Your task to perform on an android device: Clear all items from cart on amazon. Add "jbl flip 4" to the cart on amazon Image 0: 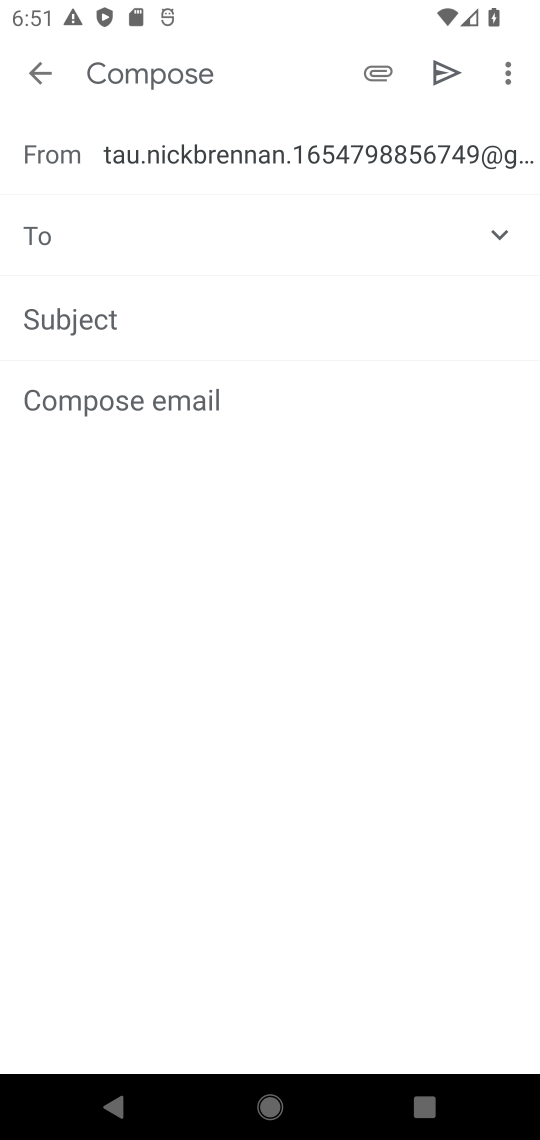
Step 0: click (250, 473)
Your task to perform on an android device: Clear all items from cart on amazon. Add "jbl flip 4" to the cart on amazon Image 1: 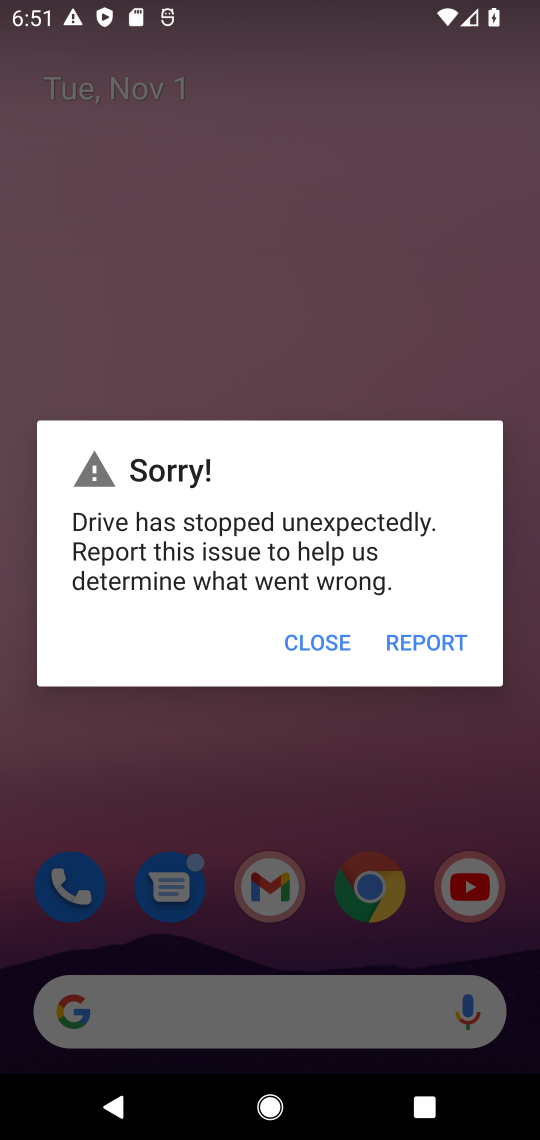
Step 1: press home button
Your task to perform on an android device: Clear all items from cart on amazon. Add "jbl flip 4" to the cart on amazon Image 2: 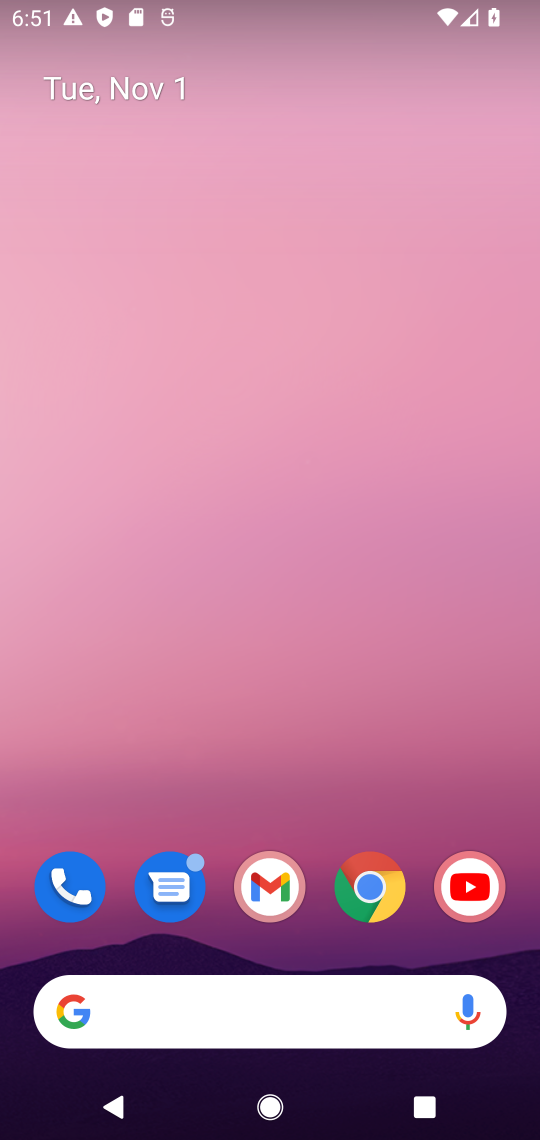
Step 2: drag from (226, 609) to (220, 321)
Your task to perform on an android device: Clear all items from cart on amazon. Add "jbl flip 4" to the cart on amazon Image 3: 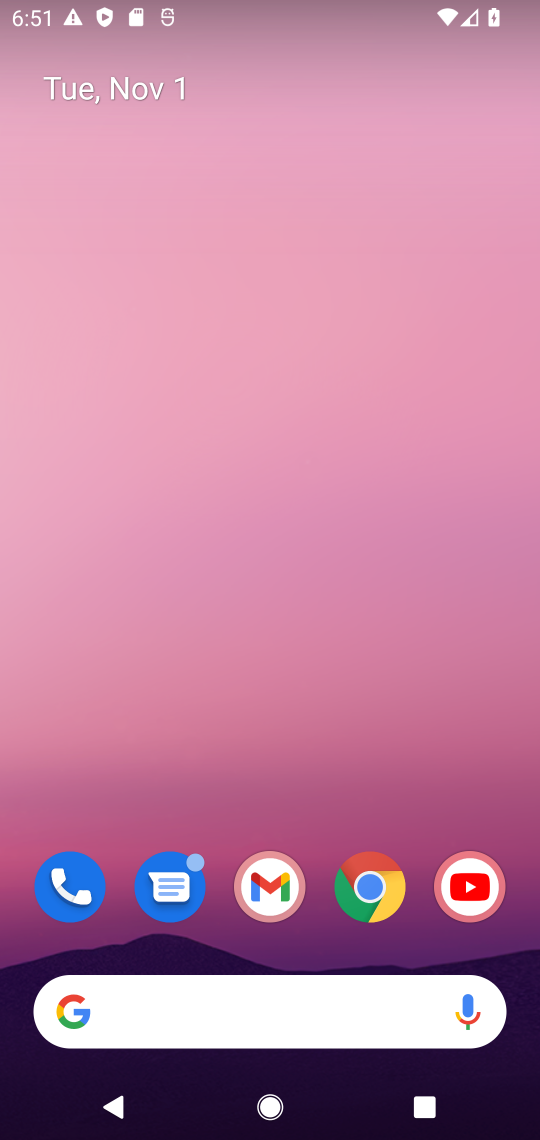
Step 3: drag from (196, 939) to (275, 280)
Your task to perform on an android device: Clear all items from cart on amazon. Add "jbl flip 4" to the cart on amazon Image 4: 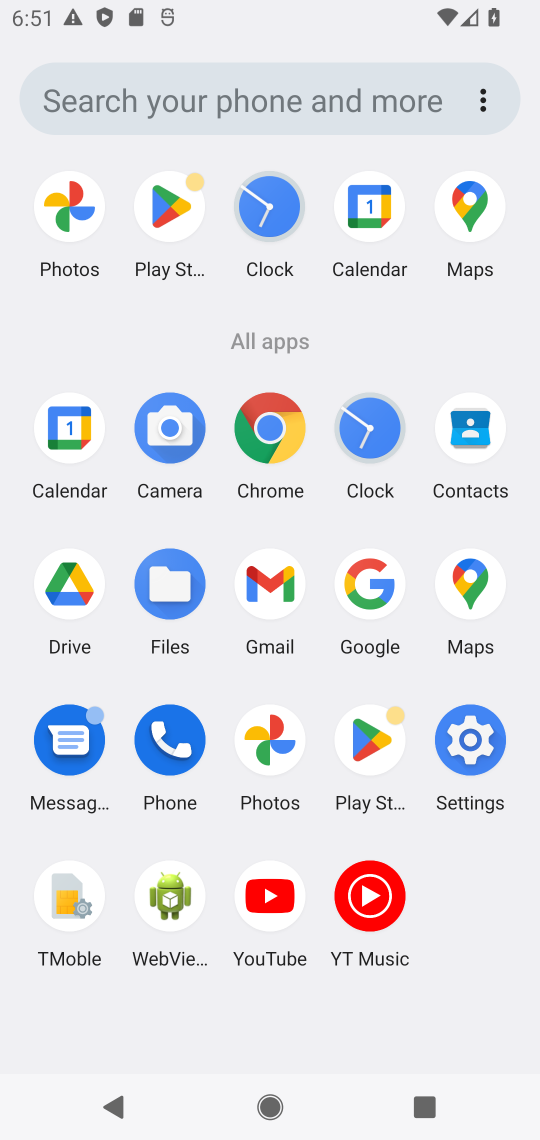
Step 4: click (370, 577)
Your task to perform on an android device: Clear all items from cart on amazon. Add "jbl flip 4" to the cart on amazon Image 5: 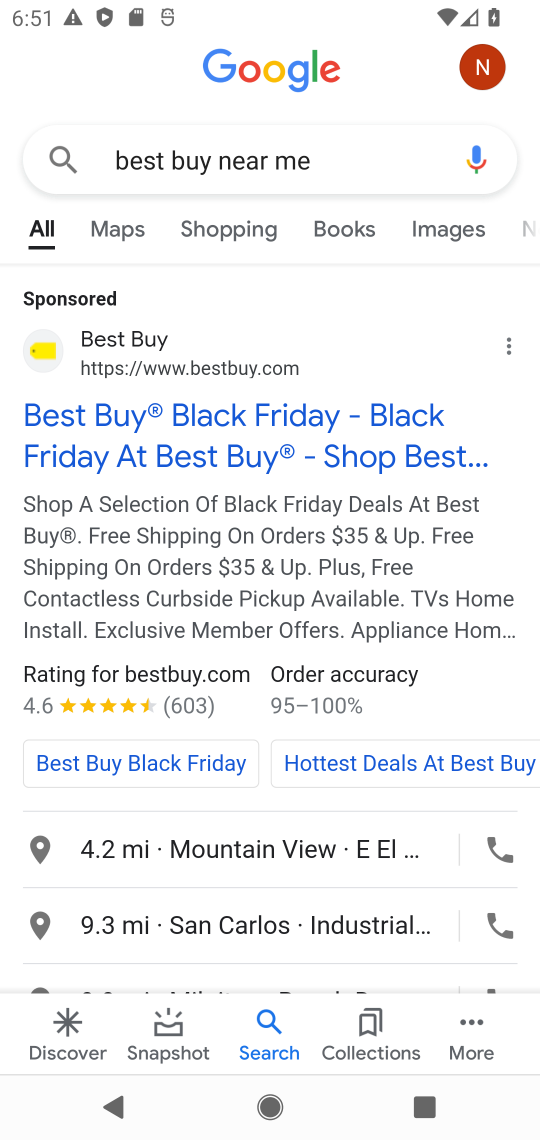
Step 5: click (336, 151)
Your task to perform on an android device: Clear all items from cart on amazon. Add "jbl flip 4" to the cart on amazon Image 6: 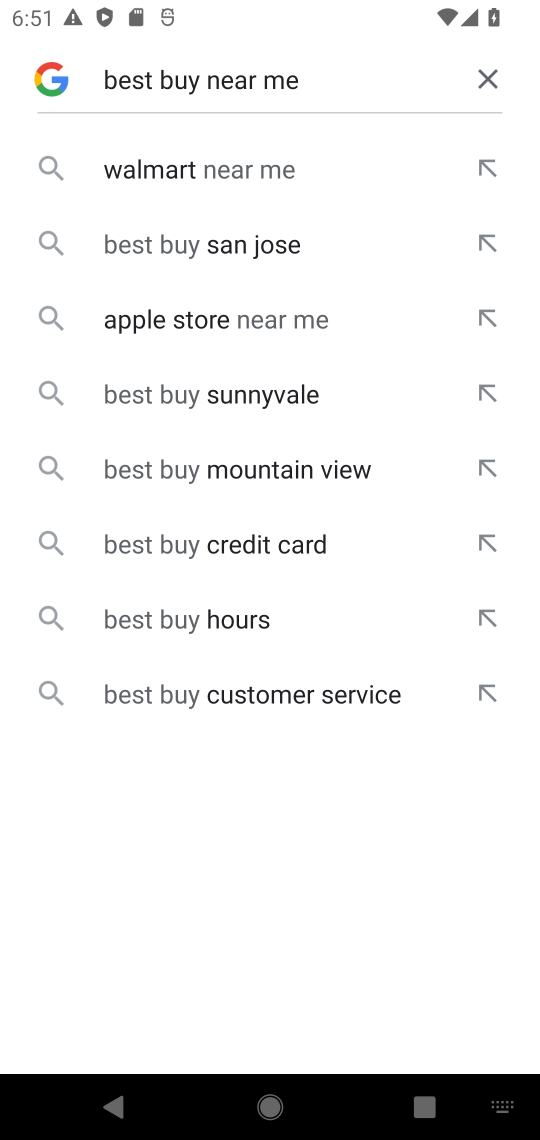
Step 6: click (485, 67)
Your task to perform on an android device: Clear all items from cart on amazon. Add "jbl flip 4" to the cart on amazon Image 7: 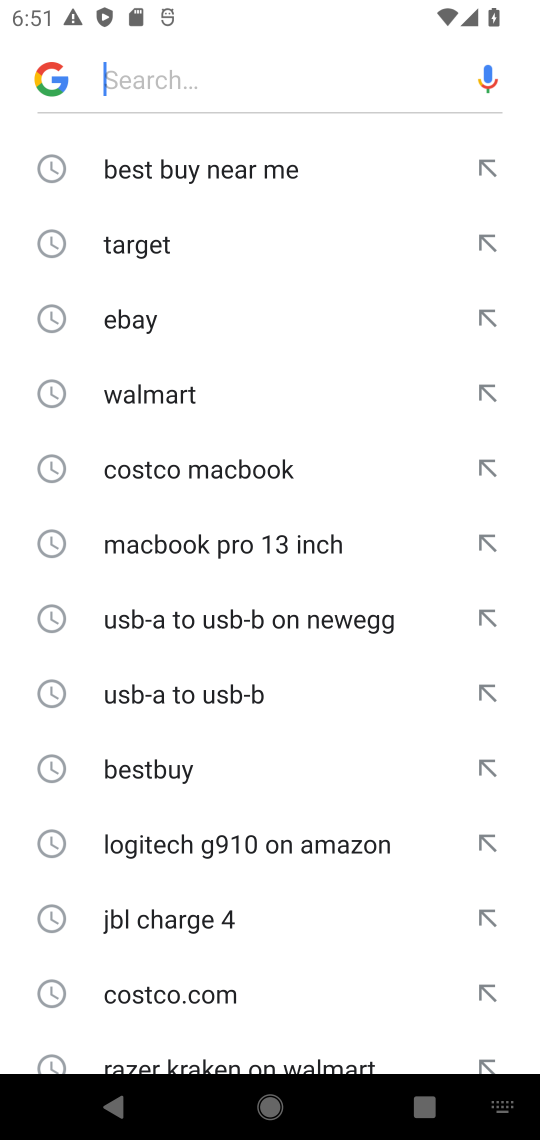
Step 7: click (220, 57)
Your task to perform on an android device: Clear all items from cart on amazon. Add "jbl flip 4" to the cart on amazon Image 8: 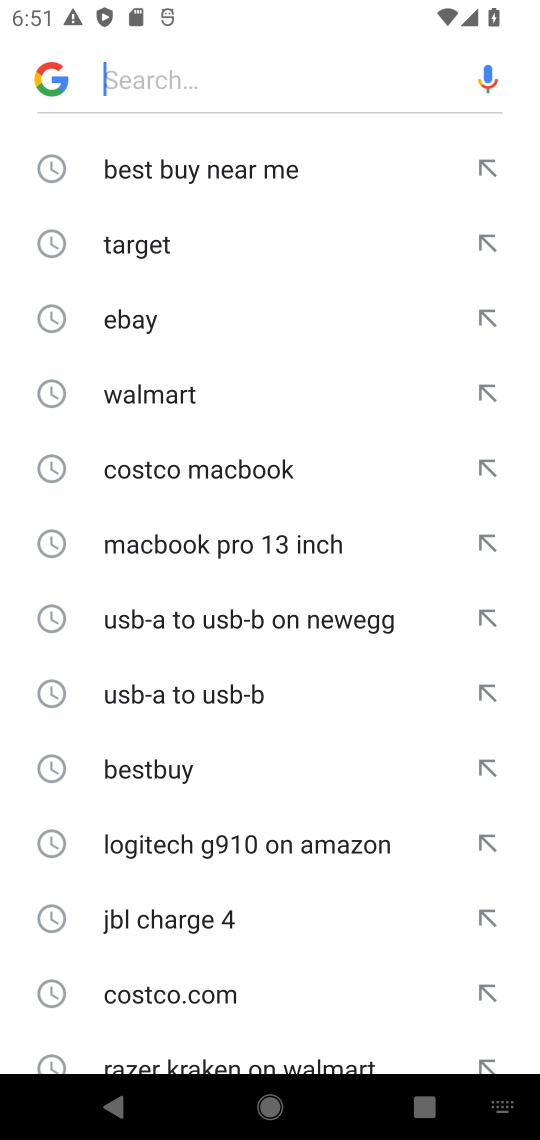
Step 8: type "amazon "
Your task to perform on an android device: Clear all items from cart on amazon. Add "jbl flip 4" to the cart on amazon Image 9: 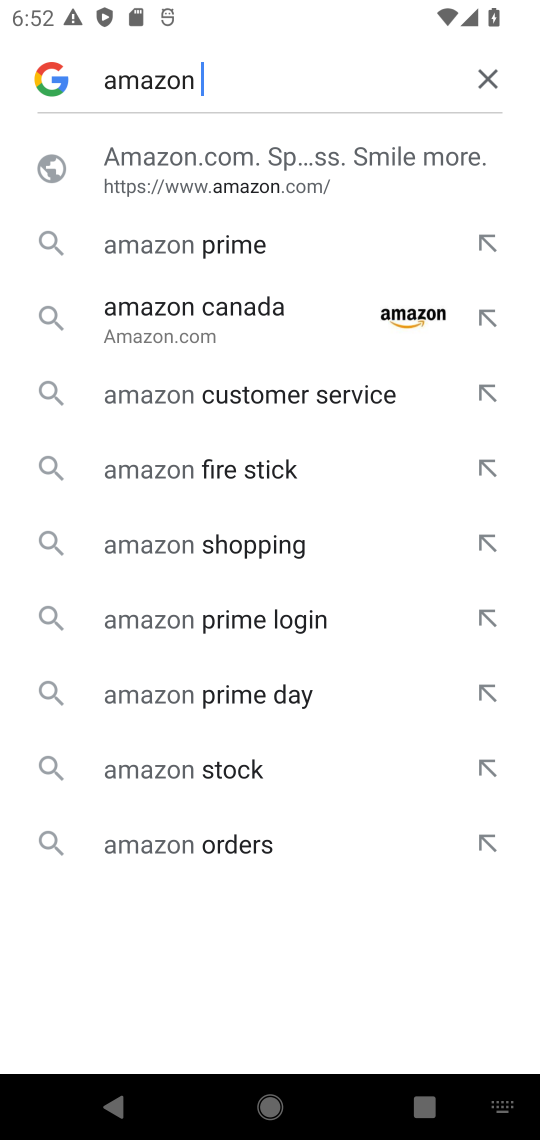
Step 9: click (226, 311)
Your task to perform on an android device: Clear all items from cart on amazon. Add "jbl flip 4" to the cart on amazon Image 10: 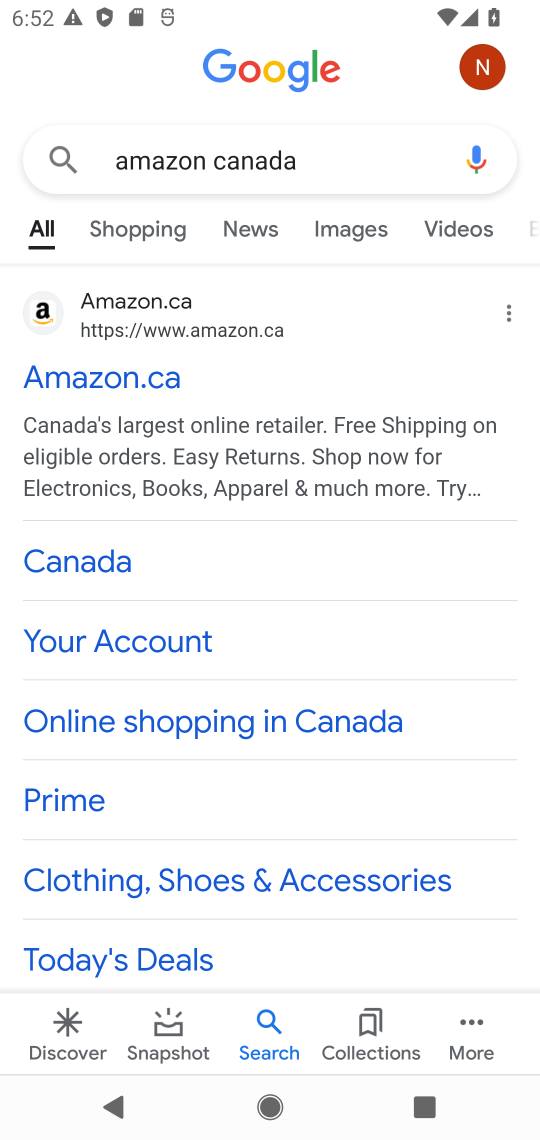
Step 10: click (110, 380)
Your task to perform on an android device: Clear all items from cart on amazon. Add "jbl flip 4" to the cart on amazon Image 11: 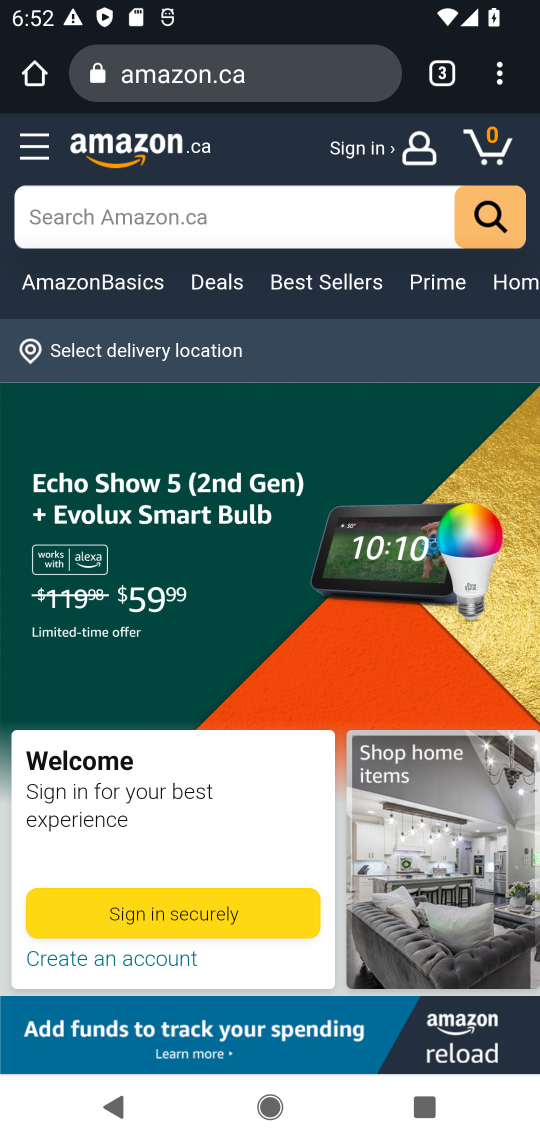
Step 11: click (234, 207)
Your task to perform on an android device: Clear all items from cart on amazon. Add "jbl flip 4" to the cart on amazon Image 12: 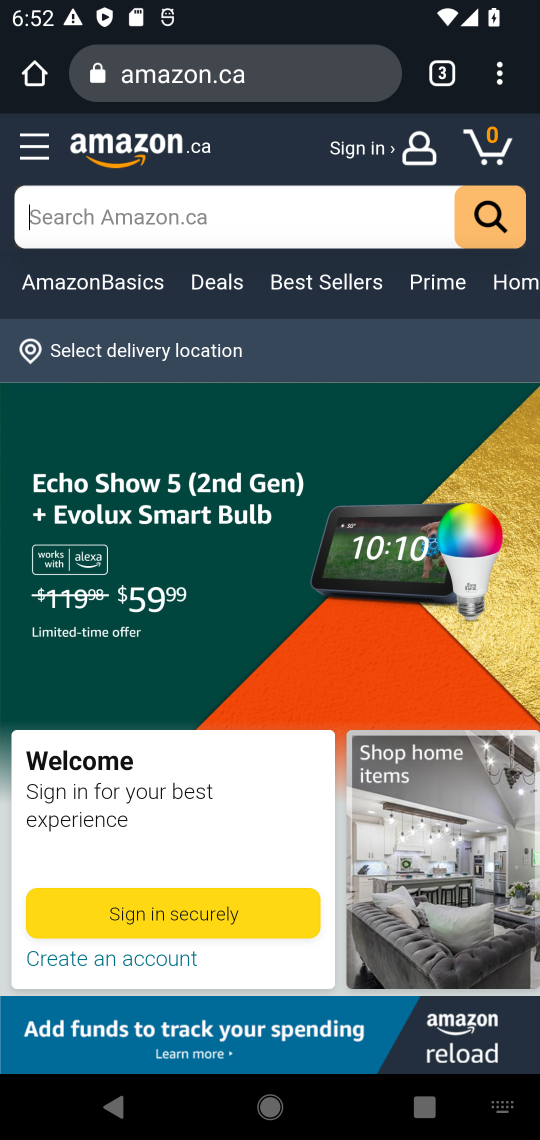
Step 12: type "jbl flip 4 "
Your task to perform on an android device: Clear all items from cart on amazon. Add "jbl flip 4" to the cart on amazon Image 13: 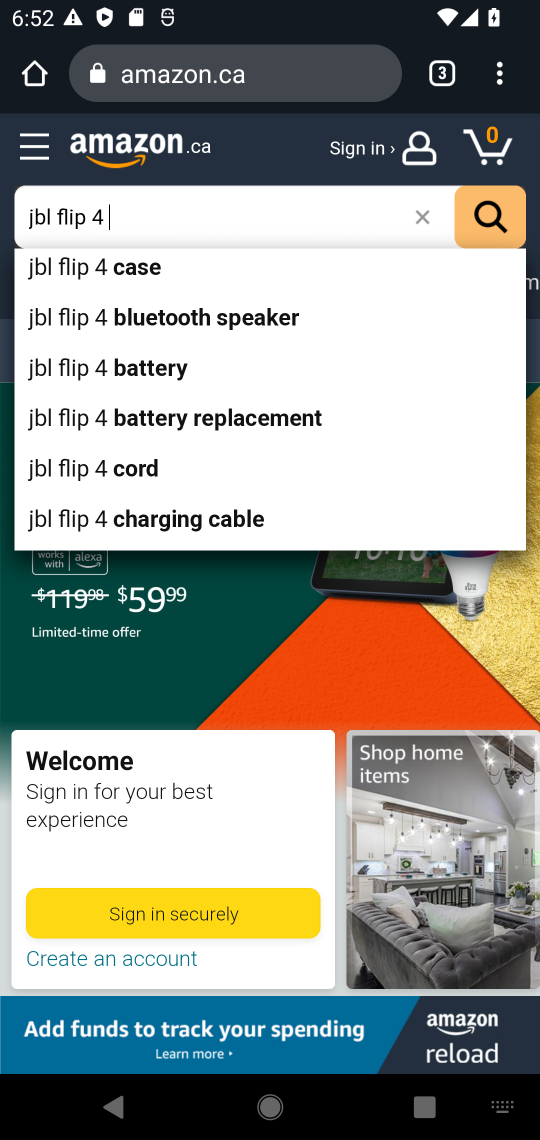
Step 13: click (128, 277)
Your task to perform on an android device: Clear all items from cart on amazon. Add "jbl flip 4" to the cart on amazon Image 14: 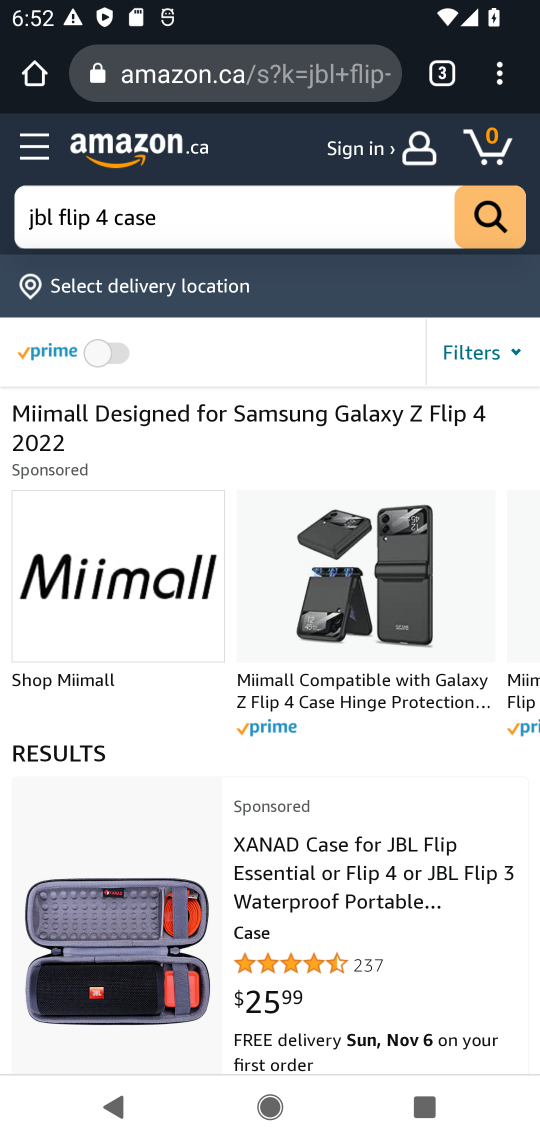
Step 14: click (511, 214)
Your task to perform on an android device: Clear all items from cart on amazon. Add "jbl flip 4" to the cart on amazon Image 15: 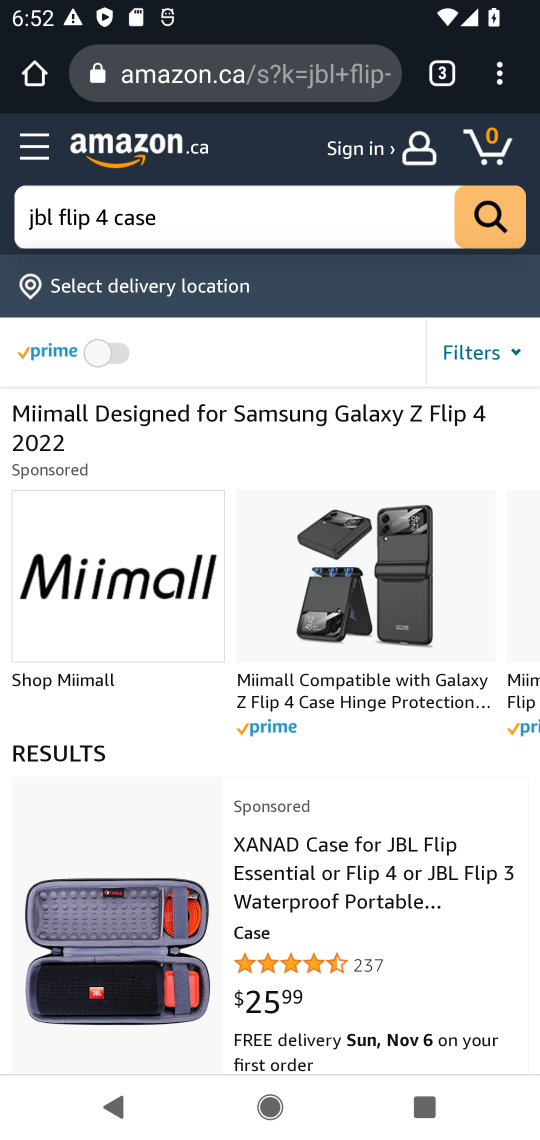
Step 15: drag from (254, 907) to (286, 539)
Your task to perform on an android device: Clear all items from cart on amazon. Add "jbl flip 4" to the cart on amazon Image 16: 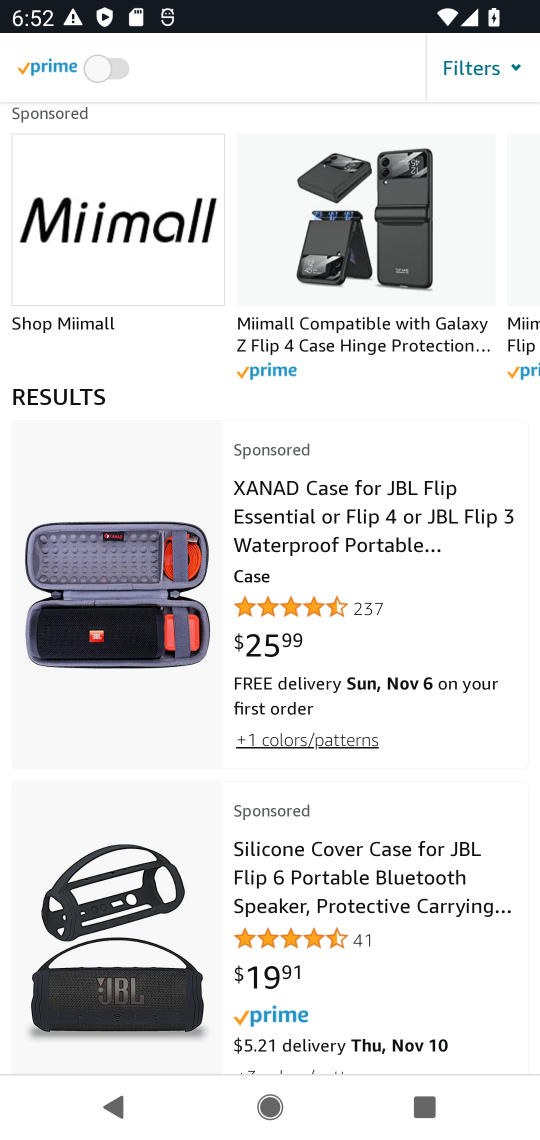
Step 16: click (206, 524)
Your task to perform on an android device: Clear all items from cart on amazon. Add "jbl flip 4" to the cart on amazon Image 17: 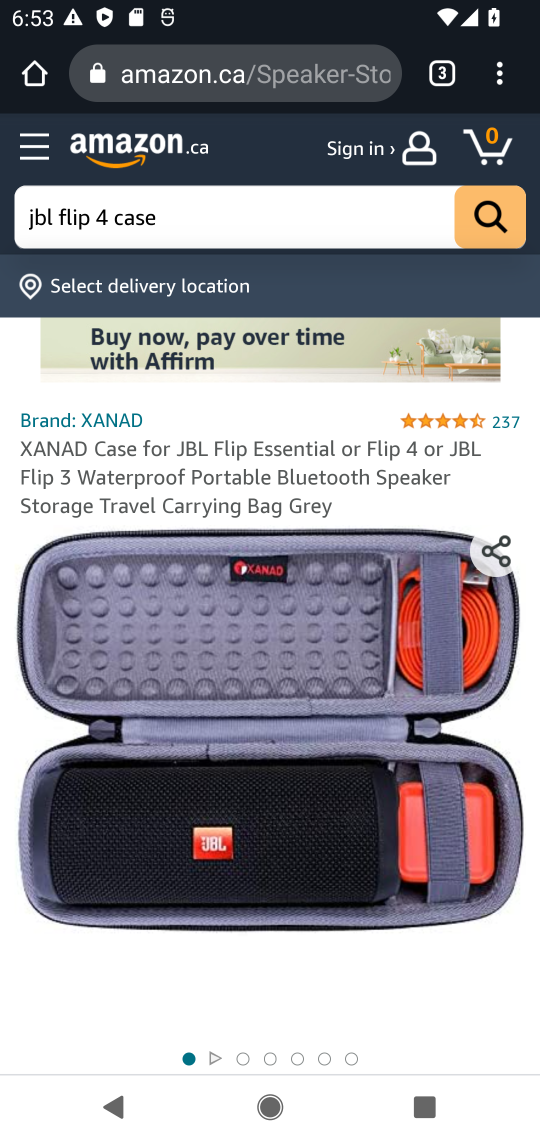
Step 17: drag from (267, 803) to (309, 357)
Your task to perform on an android device: Clear all items from cart on amazon. Add "jbl flip 4" to the cart on amazon Image 18: 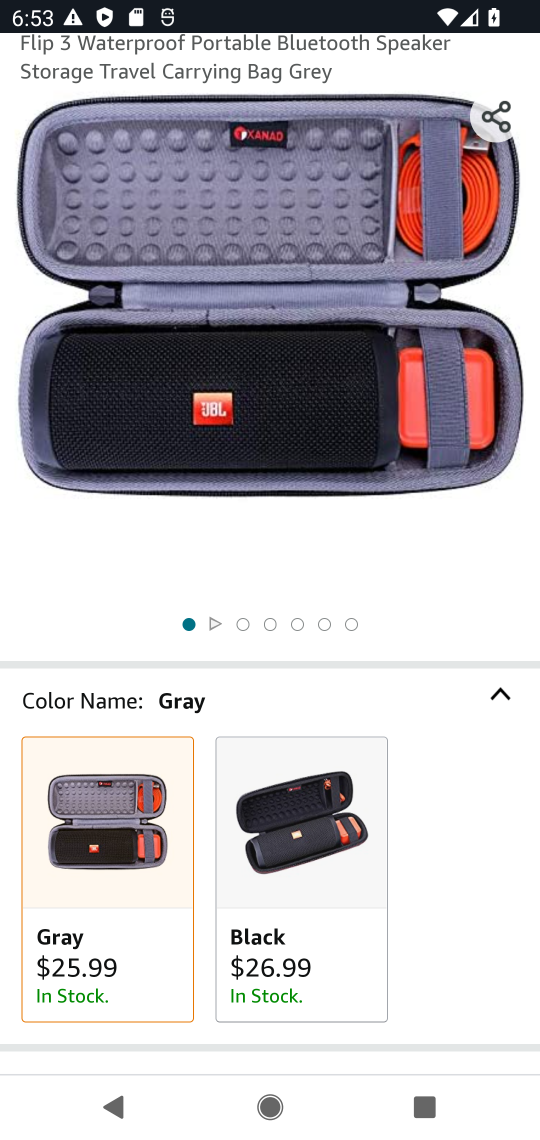
Step 18: drag from (348, 955) to (357, 340)
Your task to perform on an android device: Clear all items from cart on amazon. Add "jbl flip 4" to the cart on amazon Image 19: 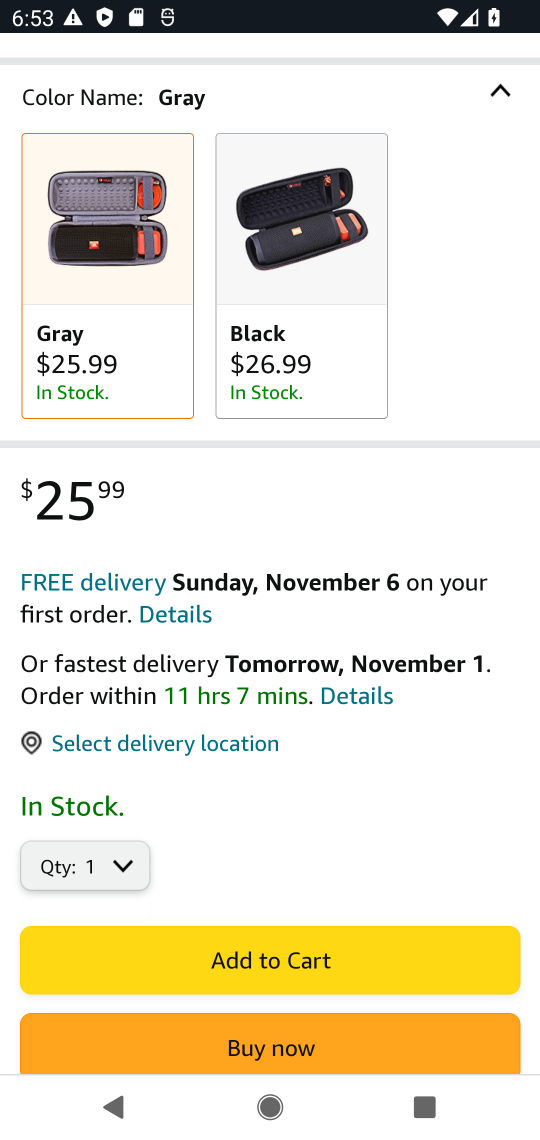
Step 19: click (253, 945)
Your task to perform on an android device: Clear all items from cart on amazon. Add "jbl flip 4" to the cart on amazon Image 20: 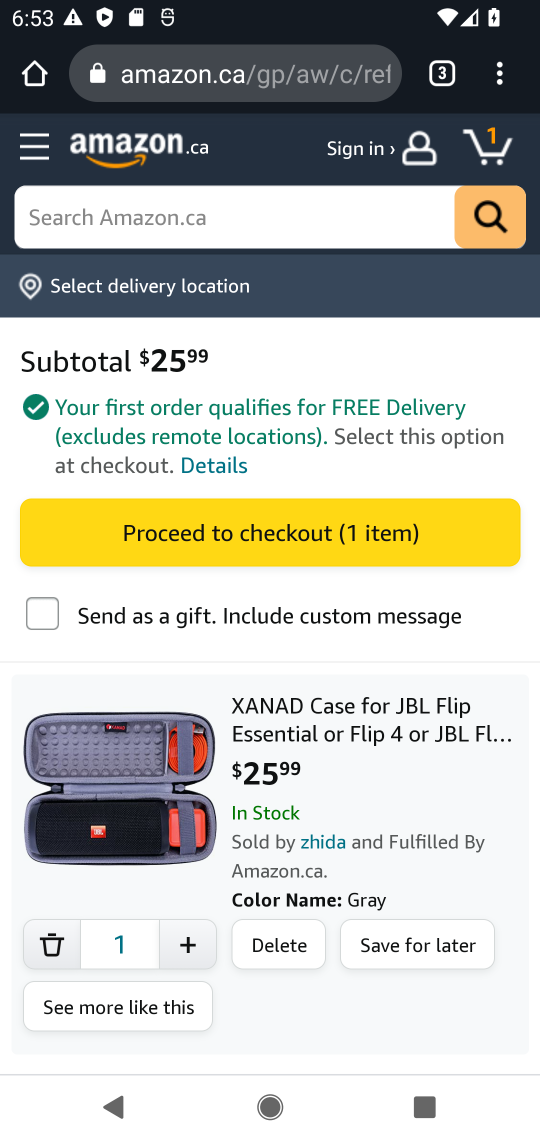
Step 20: task complete